Your task to perform on an android device: Open Google Chrome and open the bookmarks view Image 0: 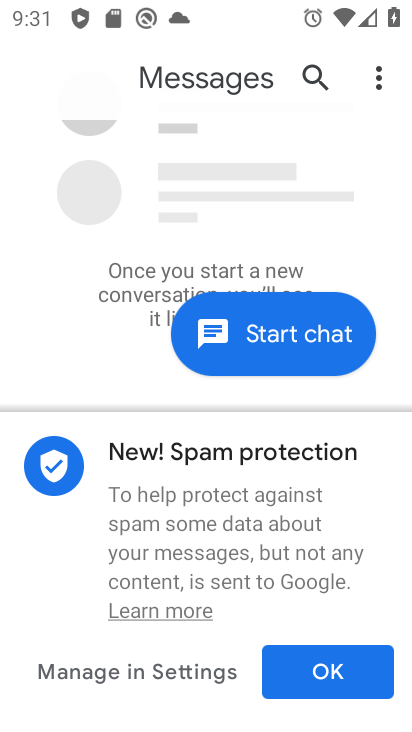
Step 0: press home button
Your task to perform on an android device: Open Google Chrome and open the bookmarks view Image 1: 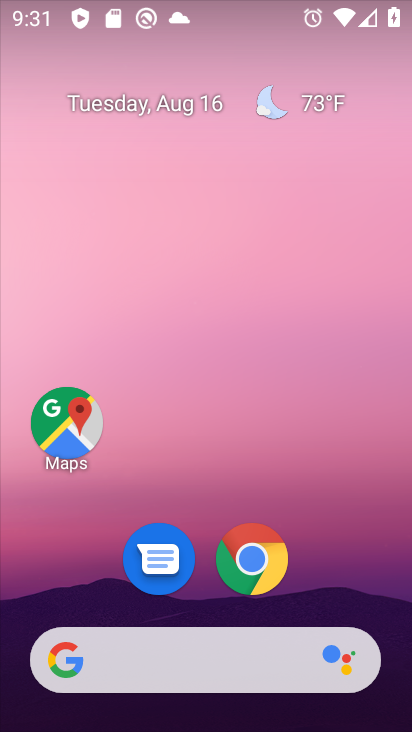
Step 1: drag from (160, 679) to (241, 153)
Your task to perform on an android device: Open Google Chrome and open the bookmarks view Image 2: 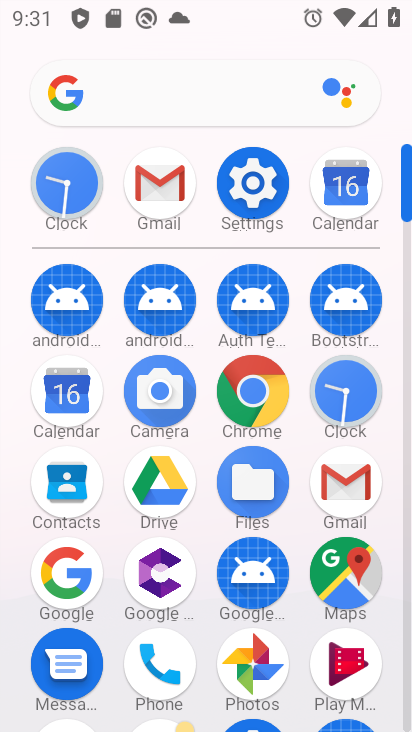
Step 2: click (252, 390)
Your task to perform on an android device: Open Google Chrome and open the bookmarks view Image 3: 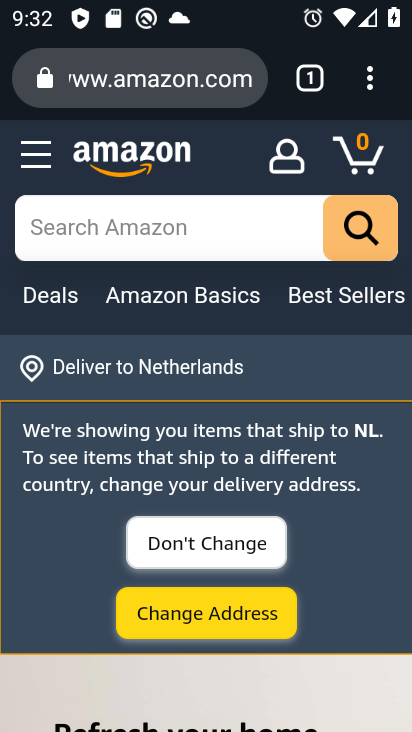
Step 3: click (376, 83)
Your task to perform on an android device: Open Google Chrome and open the bookmarks view Image 4: 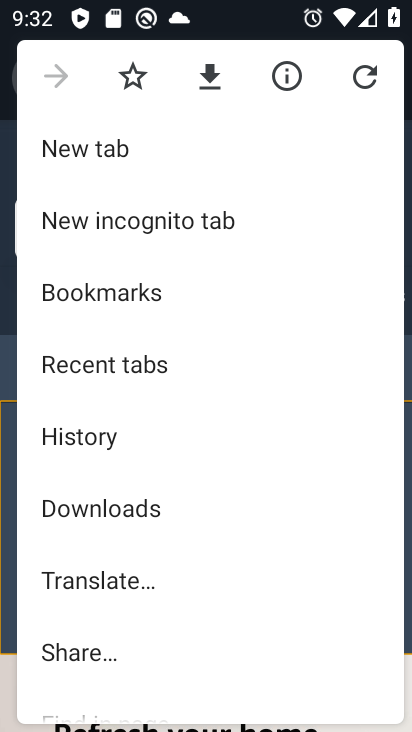
Step 4: click (145, 297)
Your task to perform on an android device: Open Google Chrome and open the bookmarks view Image 5: 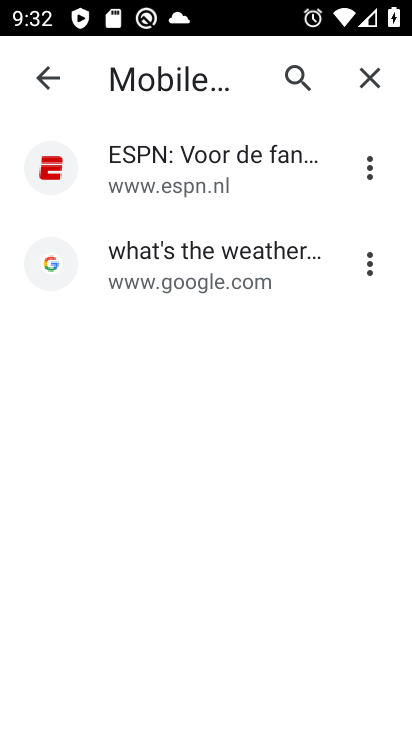
Step 5: task complete